Your task to perform on an android device: allow cookies in the chrome app Image 0: 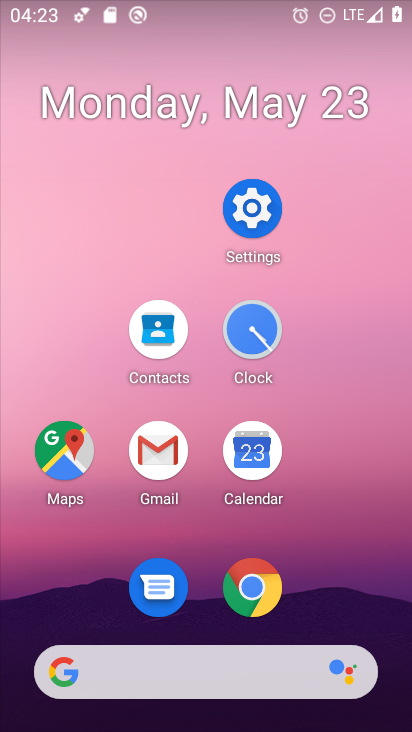
Step 0: click (250, 593)
Your task to perform on an android device: allow cookies in the chrome app Image 1: 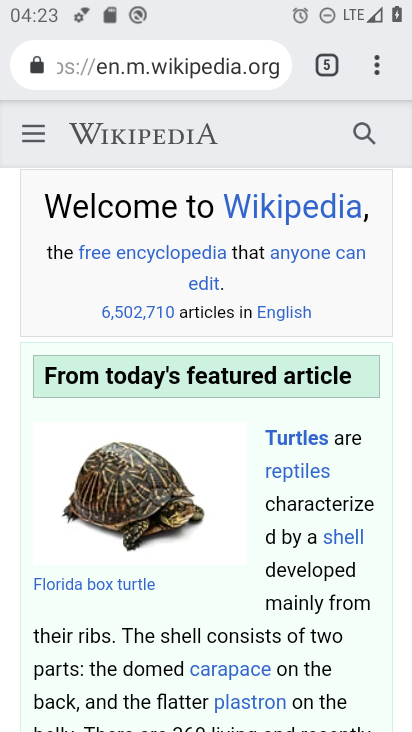
Step 1: click (387, 69)
Your task to perform on an android device: allow cookies in the chrome app Image 2: 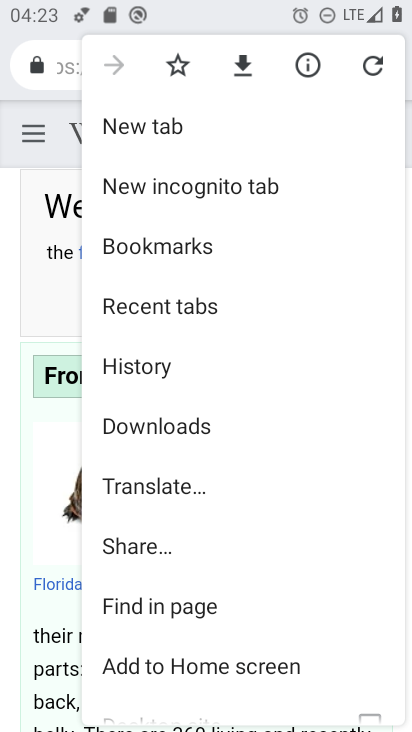
Step 2: drag from (214, 622) to (230, 250)
Your task to perform on an android device: allow cookies in the chrome app Image 3: 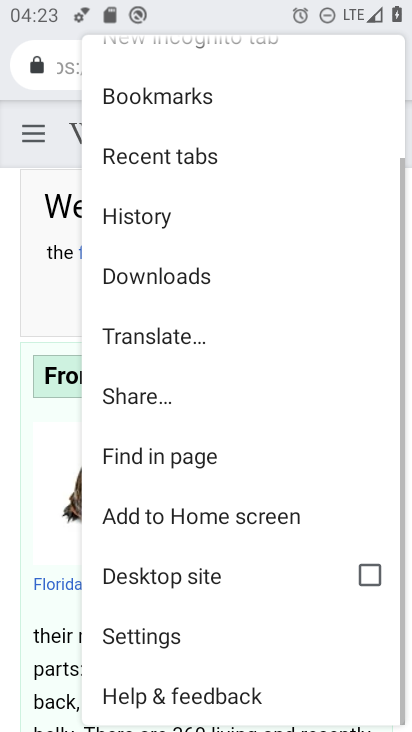
Step 3: click (208, 626)
Your task to perform on an android device: allow cookies in the chrome app Image 4: 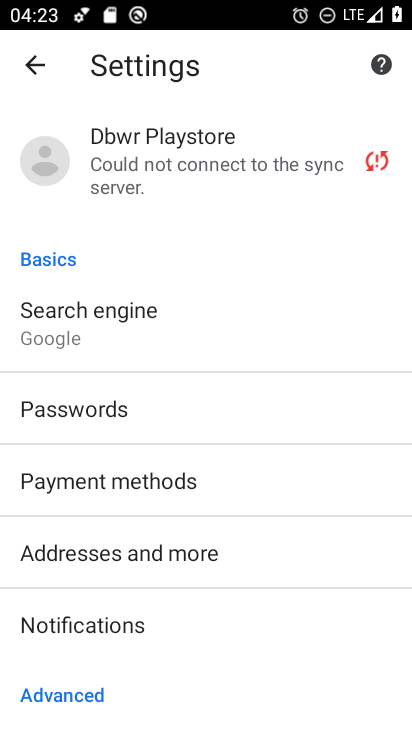
Step 4: drag from (227, 541) to (250, 210)
Your task to perform on an android device: allow cookies in the chrome app Image 5: 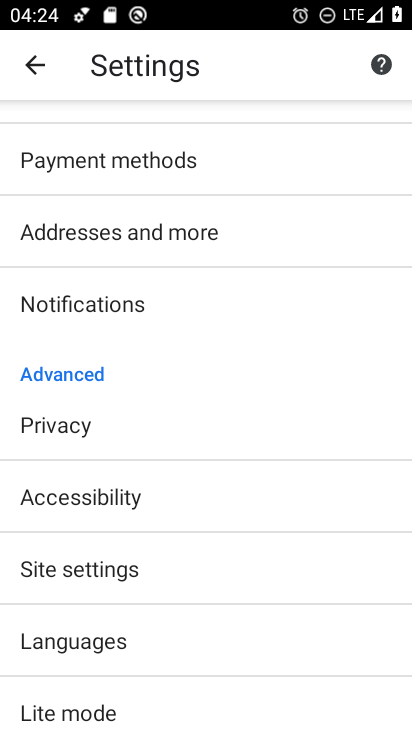
Step 5: click (210, 569)
Your task to perform on an android device: allow cookies in the chrome app Image 6: 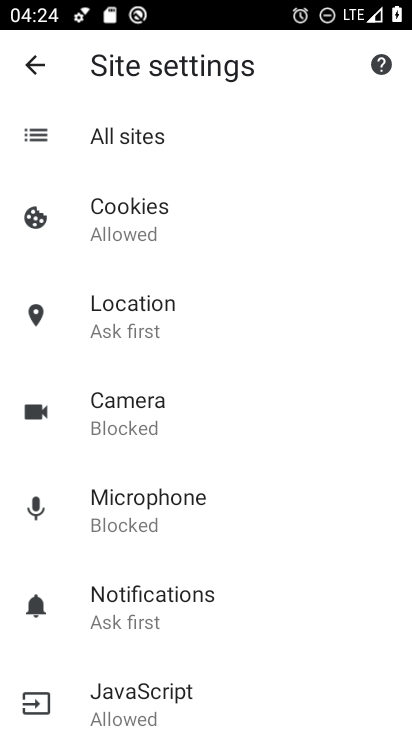
Step 6: click (156, 200)
Your task to perform on an android device: allow cookies in the chrome app Image 7: 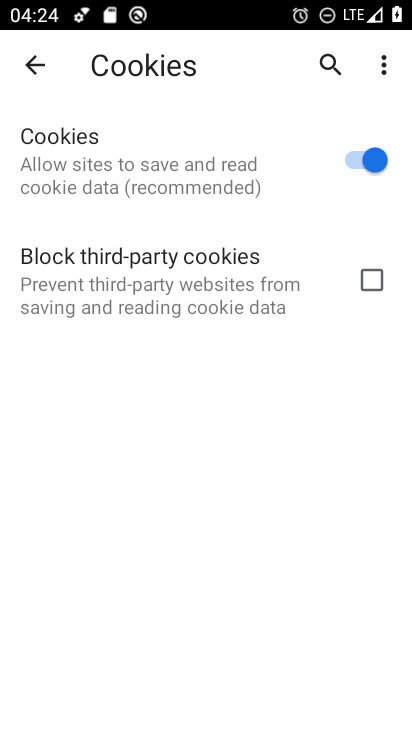
Step 7: click (336, 165)
Your task to perform on an android device: allow cookies in the chrome app Image 8: 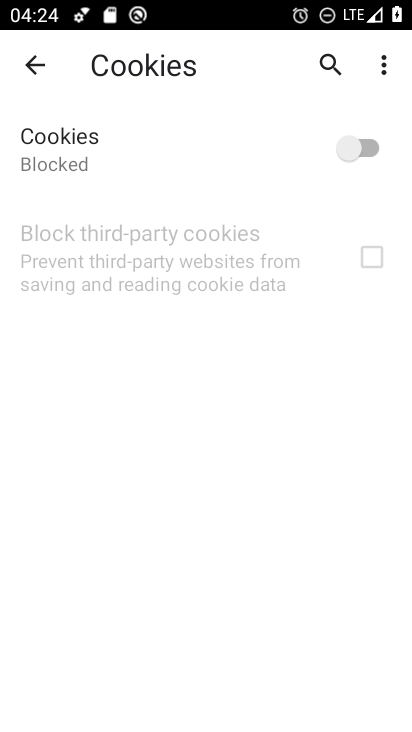
Step 8: task complete